Your task to perform on an android device: Turn off the flashlight Image 0: 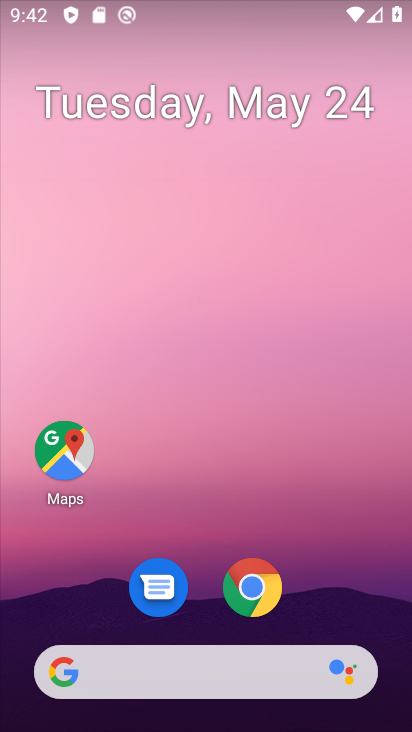
Step 0: drag from (325, 7) to (239, 728)
Your task to perform on an android device: Turn off the flashlight Image 1: 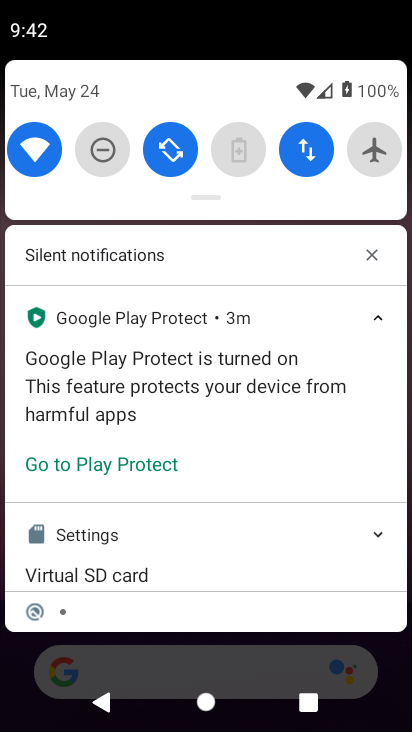
Step 1: task complete